Your task to perform on an android device: Open Wikipedia Image 0: 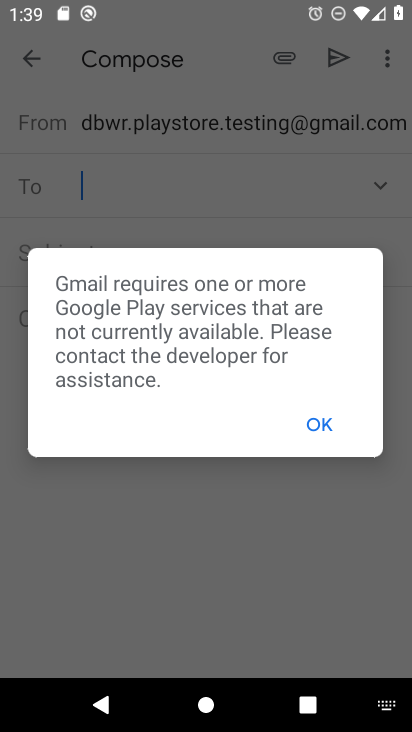
Step 0: click (318, 433)
Your task to perform on an android device: Open Wikipedia Image 1: 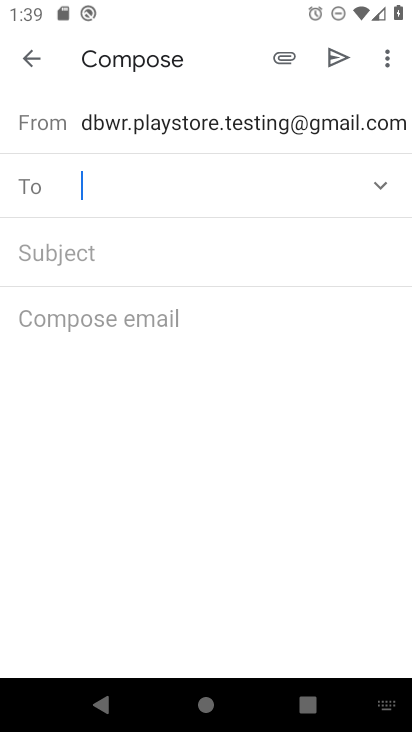
Step 1: press home button
Your task to perform on an android device: Open Wikipedia Image 2: 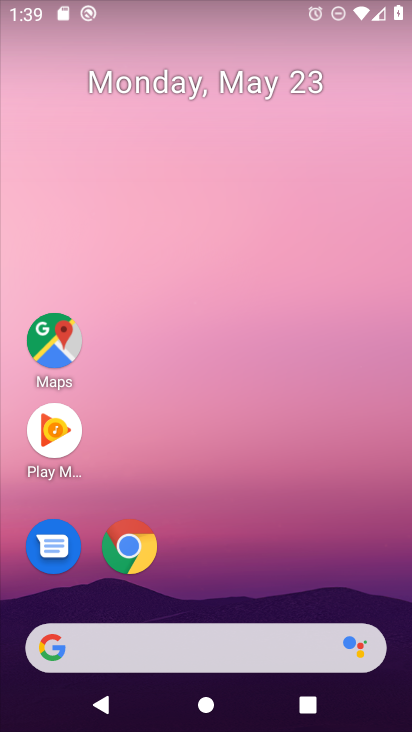
Step 2: click (140, 552)
Your task to perform on an android device: Open Wikipedia Image 3: 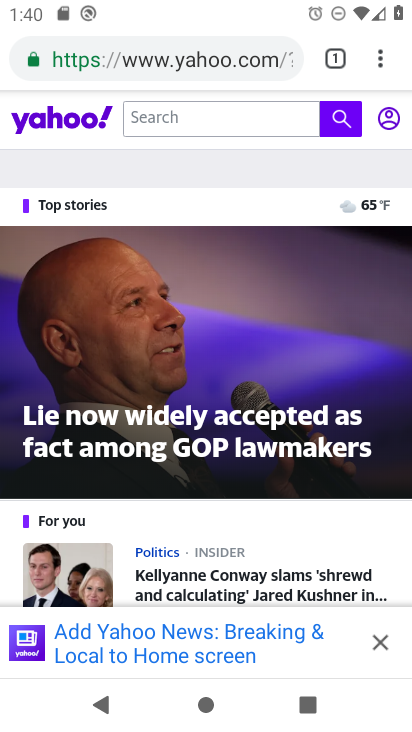
Step 3: click (217, 68)
Your task to perform on an android device: Open Wikipedia Image 4: 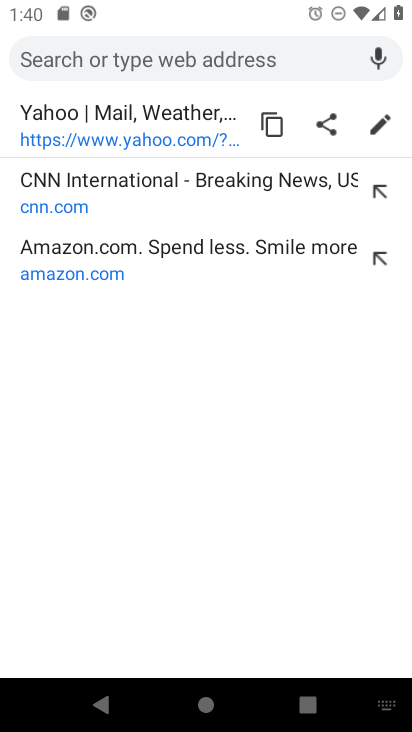
Step 4: type "wikipedia"
Your task to perform on an android device: Open Wikipedia Image 5: 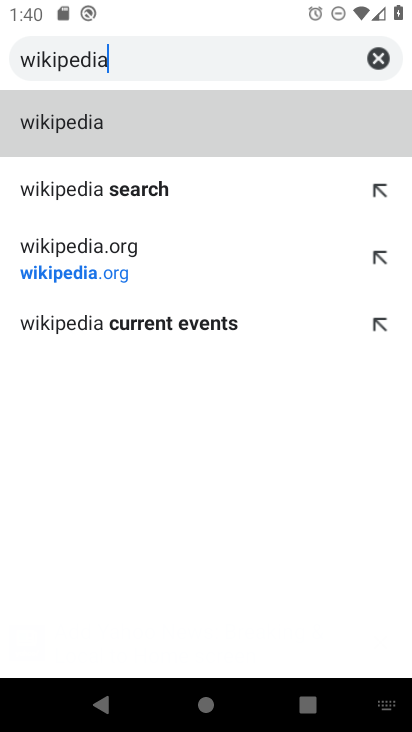
Step 5: click (178, 253)
Your task to perform on an android device: Open Wikipedia Image 6: 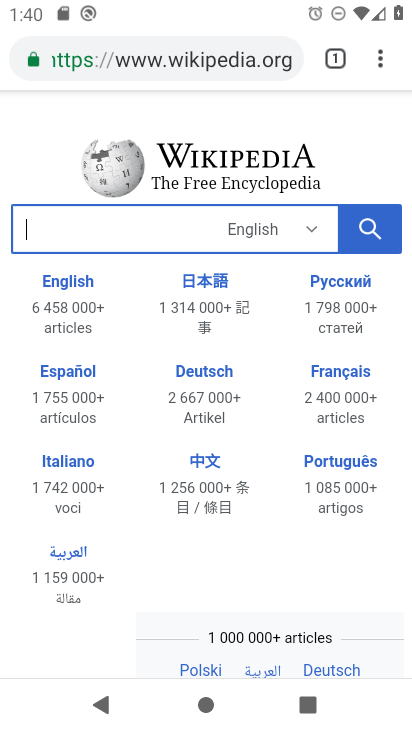
Step 6: task complete